Your task to perform on an android device: Do I have any events this weekend? Image 0: 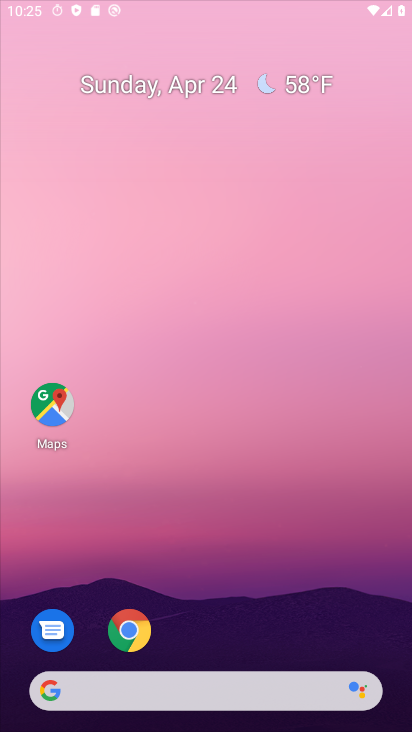
Step 0: drag from (340, 248) to (342, 192)
Your task to perform on an android device: Do I have any events this weekend? Image 1: 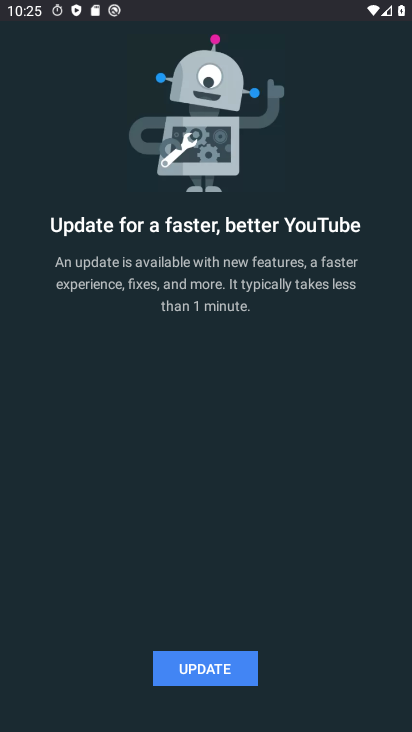
Step 1: press home button
Your task to perform on an android device: Do I have any events this weekend? Image 2: 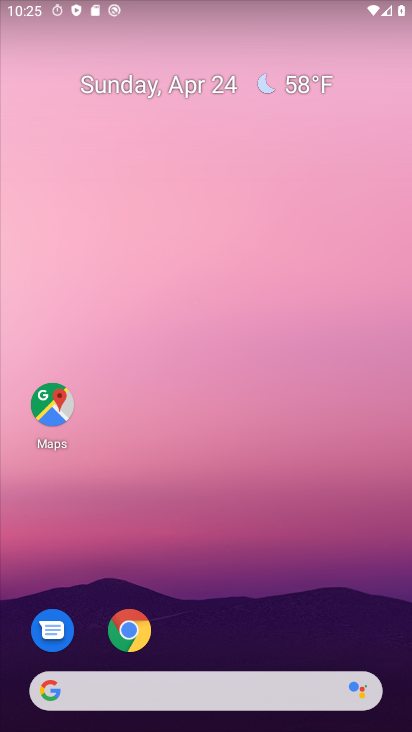
Step 2: drag from (271, 574) to (290, 249)
Your task to perform on an android device: Do I have any events this weekend? Image 3: 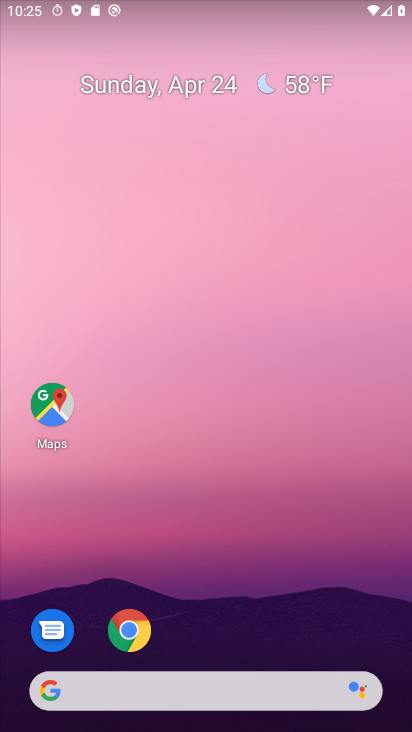
Step 3: drag from (287, 621) to (367, 258)
Your task to perform on an android device: Do I have any events this weekend? Image 4: 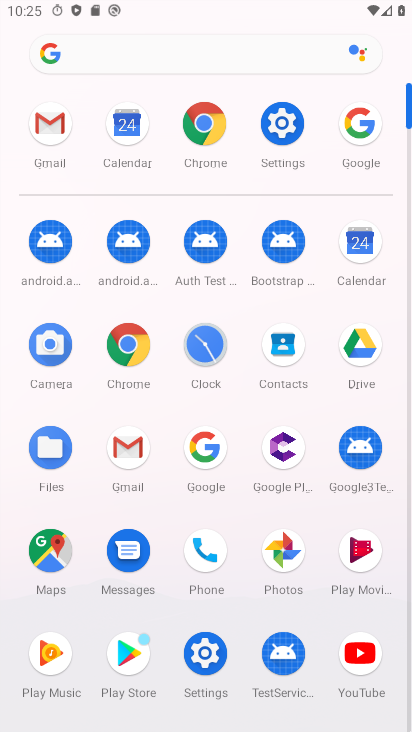
Step 4: click (354, 256)
Your task to perform on an android device: Do I have any events this weekend? Image 5: 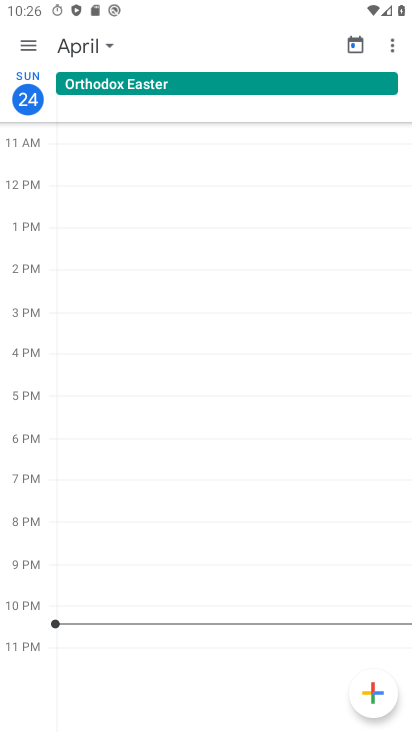
Step 5: click (97, 46)
Your task to perform on an android device: Do I have any events this weekend? Image 6: 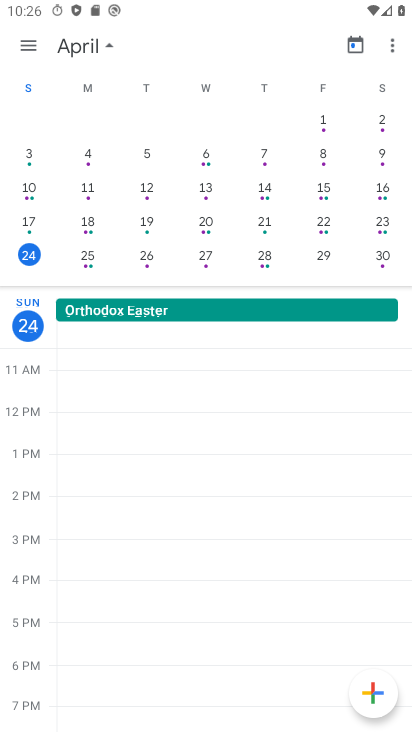
Step 6: click (217, 240)
Your task to perform on an android device: Do I have any events this weekend? Image 7: 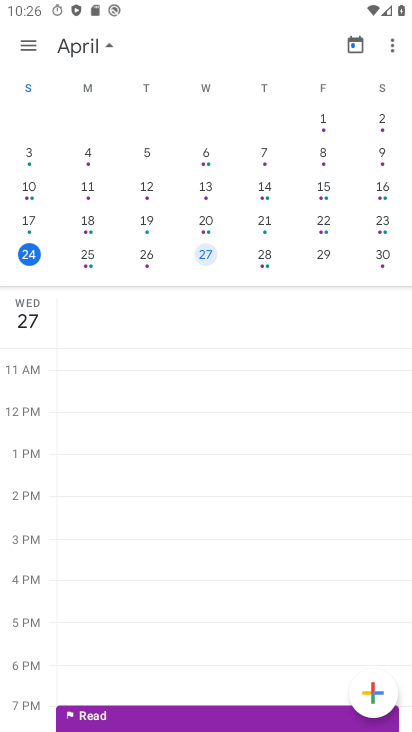
Step 7: click (317, 253)
Your task to perform on an android device: Do I have any events this weekend? Image 8: 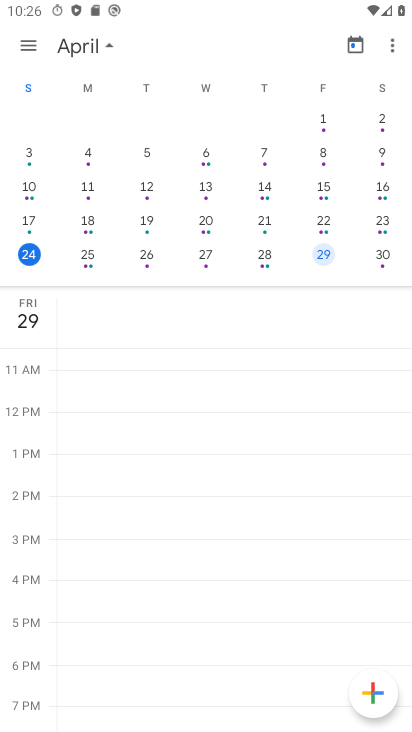
Step 8: task complete